Your task to perform on an android device: toggle translation in the chrome app Image 0: 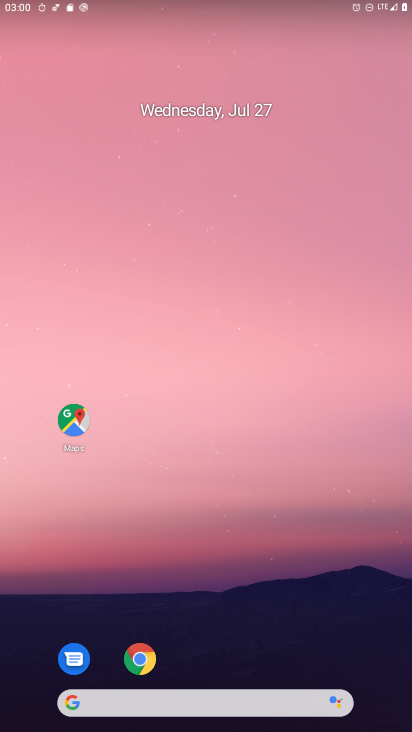
Step 0: drag from (283, 429) to (254, 23)
Your task to perform on an android device: toggle translation in the chrome app Image 1: 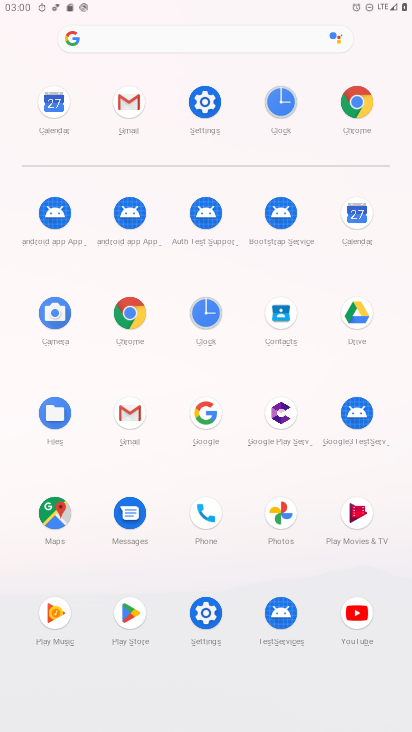
Step 1: click (353, 95)
Your task to perform on an android device: toggle translation in the chrome app Image 2: 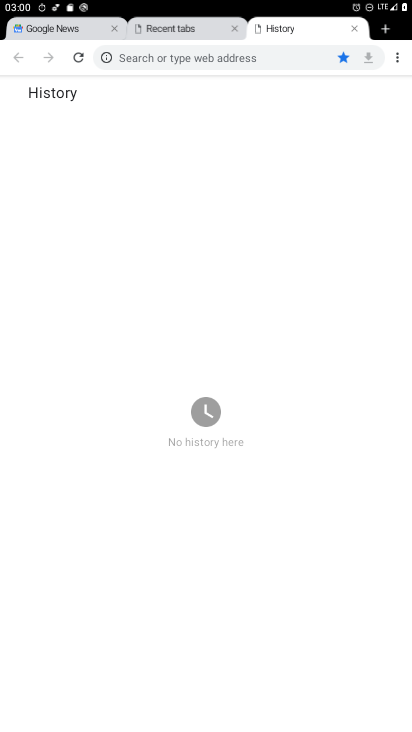
Step 2: drag from (396, 52) to (299, 267)
Your task to perform on an android device: toggle translation in the chrome app Image 3: 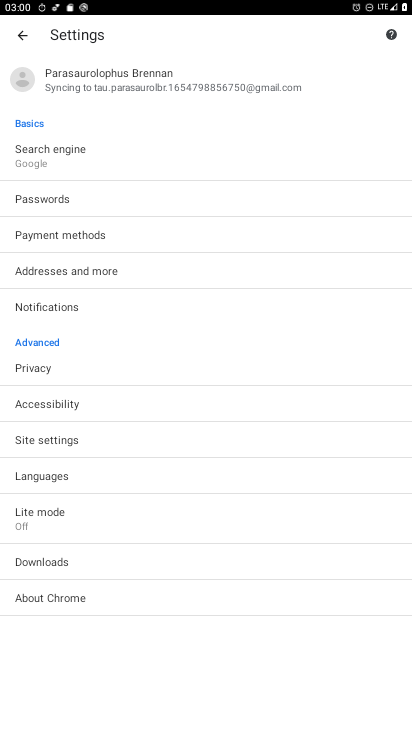
Step 3: click (80, 482)
Your task to perform on an android device: toggle translation in the chrome app Image 4: 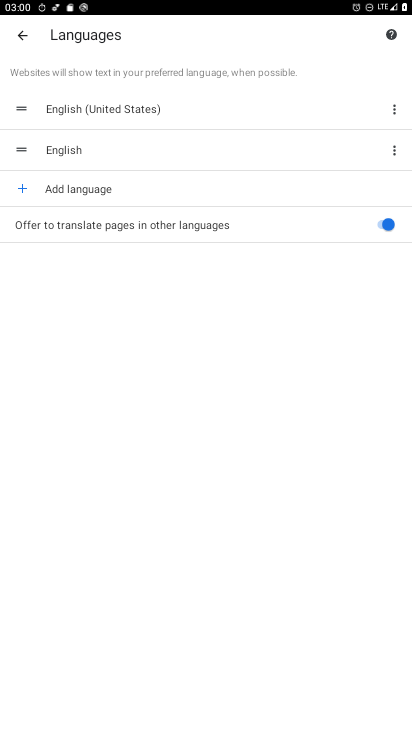
Step 4: click (374, 221)
Your task to perform on an android device: toggle translation in the chrome app Image 5: 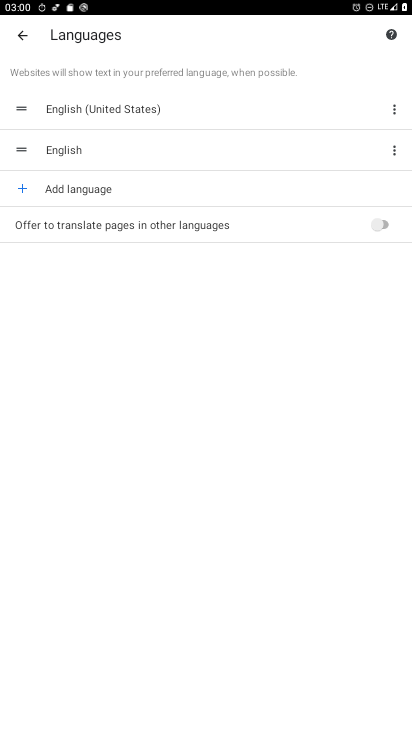
Step 5: task complete